Your task to perform on an android device: Open Reddit.com Image 0: 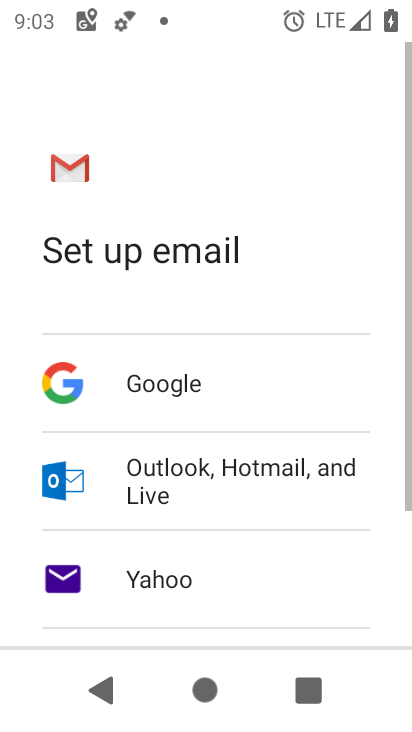
Step 0: press home button
Your task to perform on an android device: Open Reddit.com Image 1: 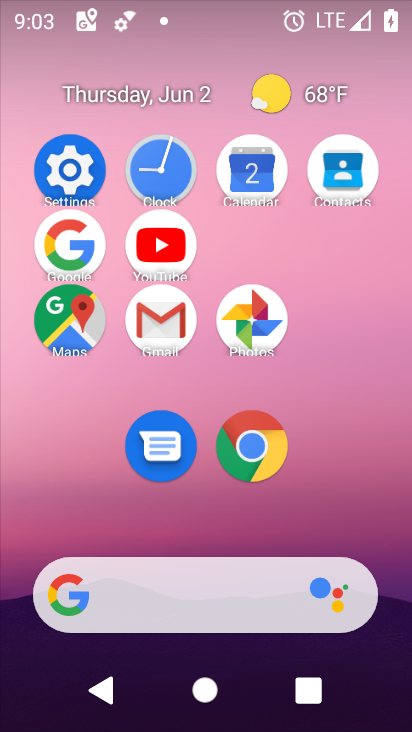
Step 1: click (75, 252)
Your task to perform on an android device: Open Reddit.com Image 2: 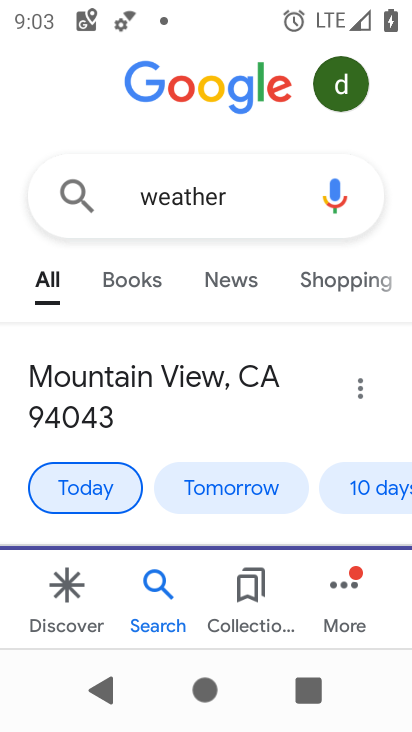
Step 2: click (259, 182)
Your task to perform on an android device: Open Reddit.com Image 3: 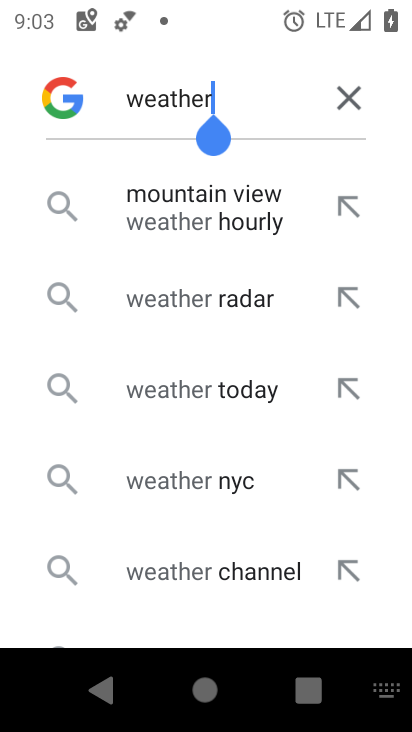
Step 3: click (344, 90)
Your task to perform on an android device: Open Reddit.com Image 4: 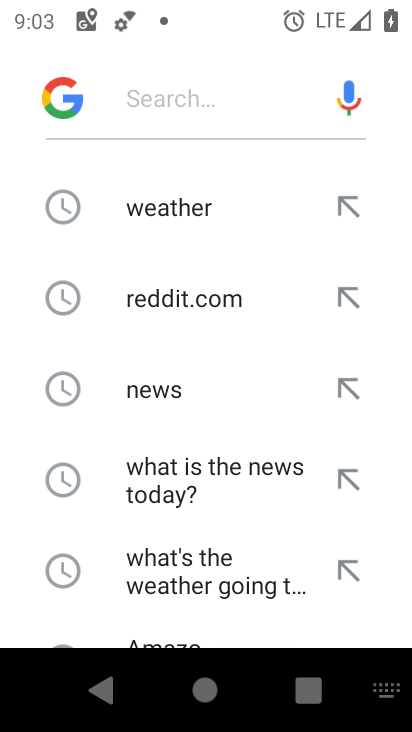
Step 4: click (193, 301)
Your task to perform on an android device: Open Reddit.com Image 5: 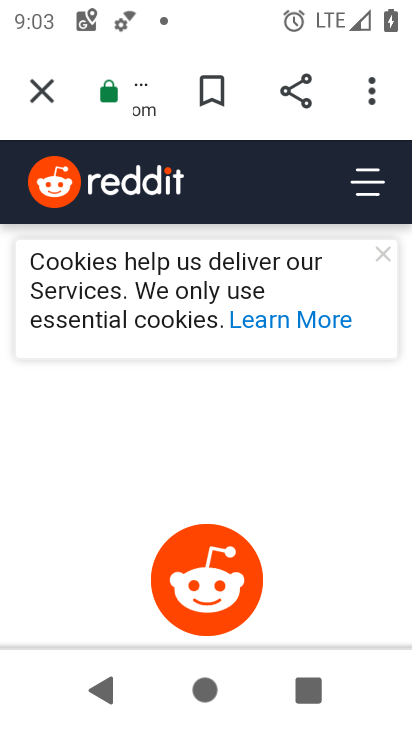
Step 5: task complete